Your task to perform on an android device: Search for top rated sushi restaurants on Maps Image 0: 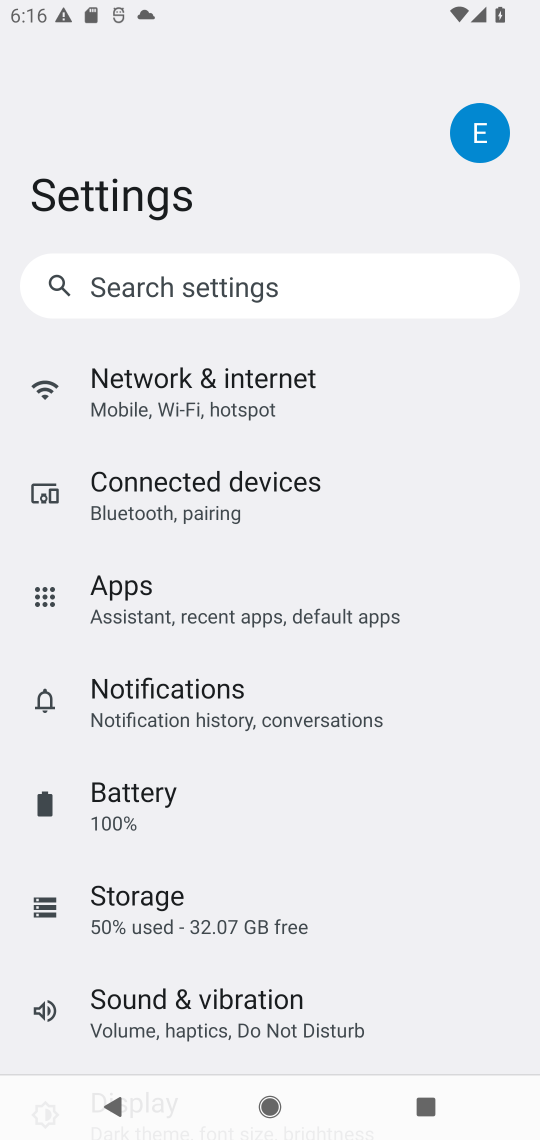
Step 0: press home button
Your task to perform on an android device: Search for top rated sushi restaurants on Maps Image 1: 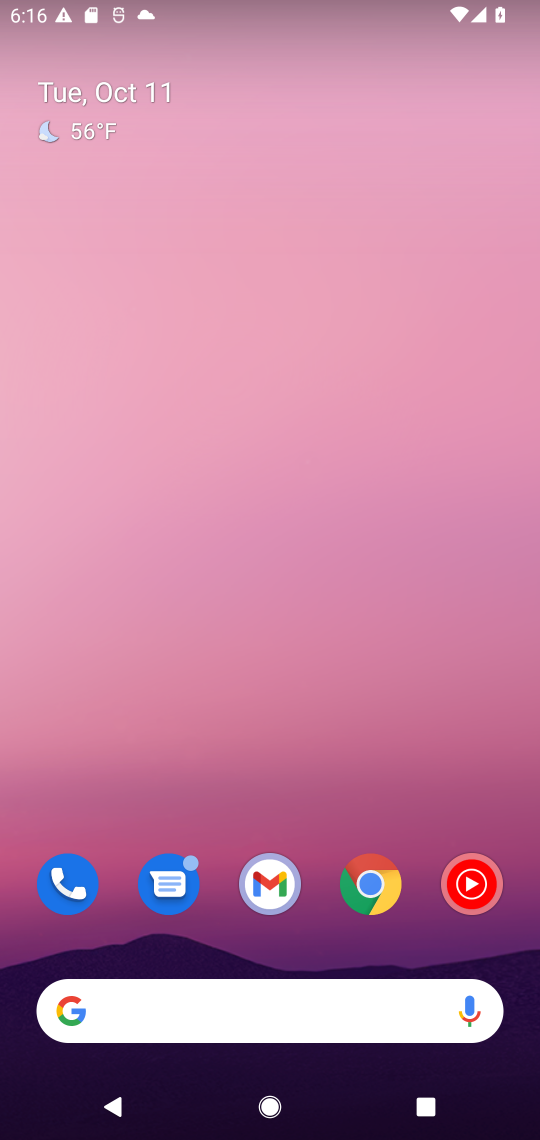
Step 1: drag from (320, 890) to (310, 92)
Your task to perform on an android device: Search for top rated sushi restaurants on Maps Image 2: 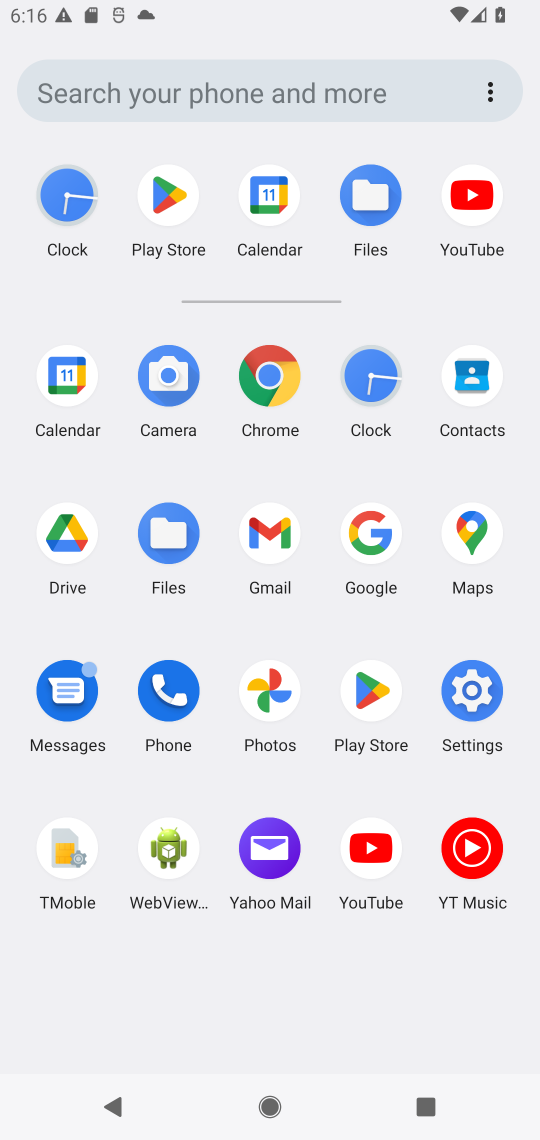
Step 2: click (463, 529)
Your task to perform on an android device: Search for top rated sushi restaurants on Maps Image 3: 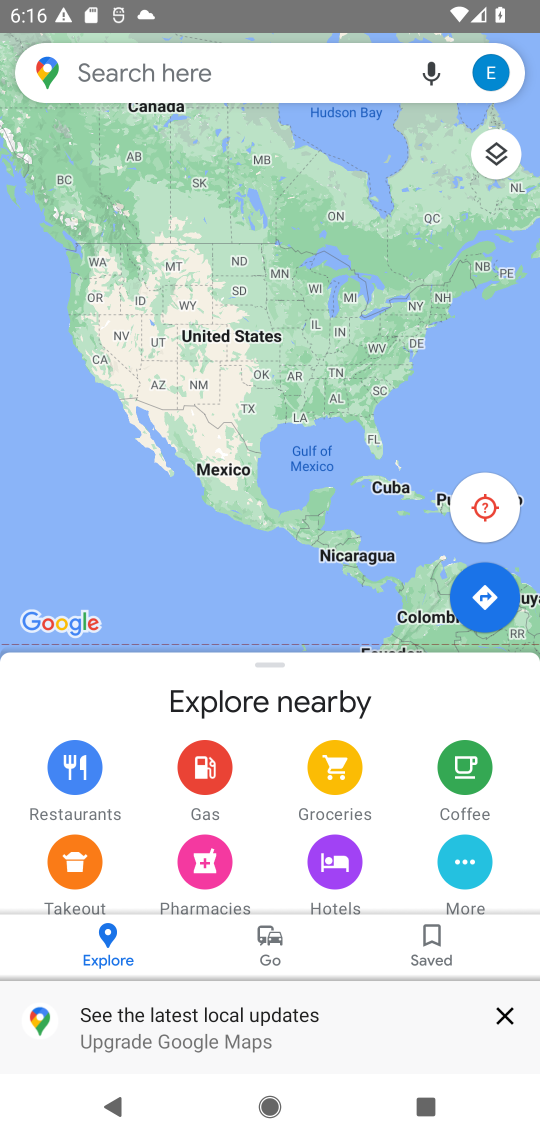
Step 3: click (248, 69)
Your task to perform on an android device: Search for top rated sushi restaurants on Maps Image 4: 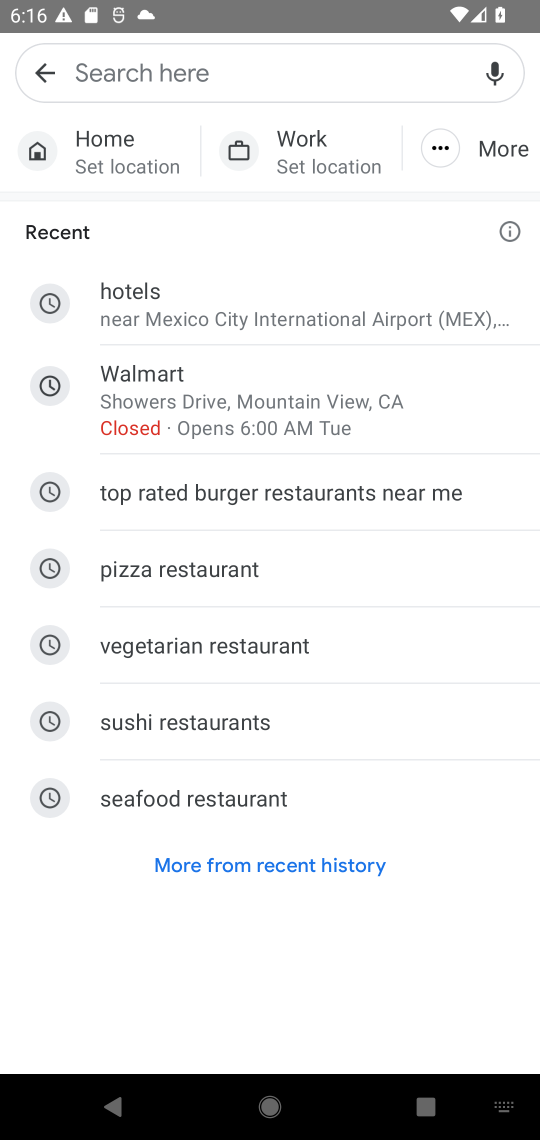
Step 4: type "top rated sushi restaurants"
Your task to perform on an android device: Search for top rated sushi restaurants on Maps Image 5: 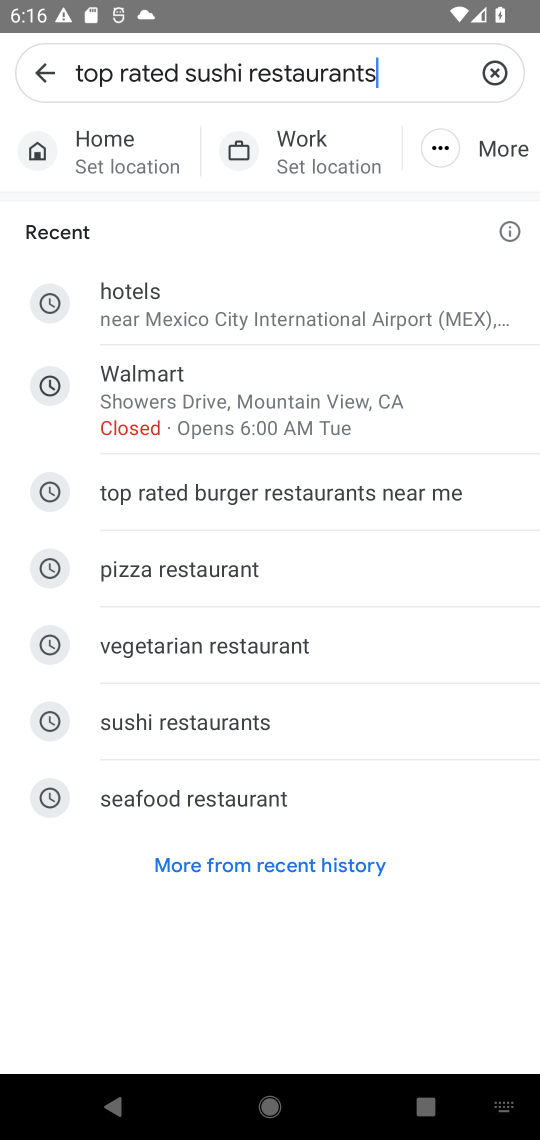
Step 5: type ""
Your task to perform on an android device: Search for top rated sushi restaurants on Maps Image 6: 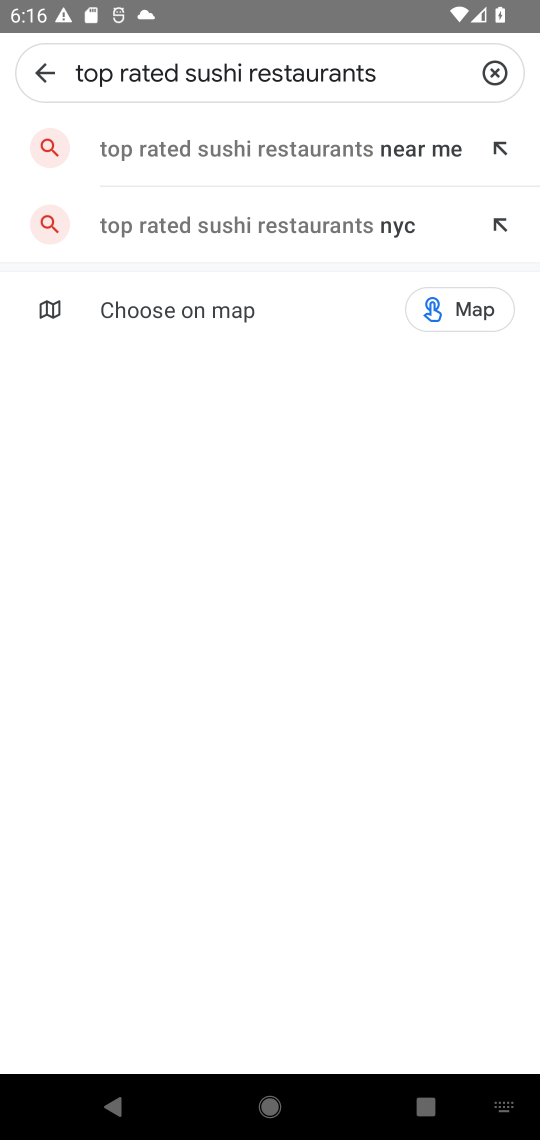
Step 6: click (334, 153)
Your task to perform on an android device: Search for top rated sushi restaurants on Maps Image 7: 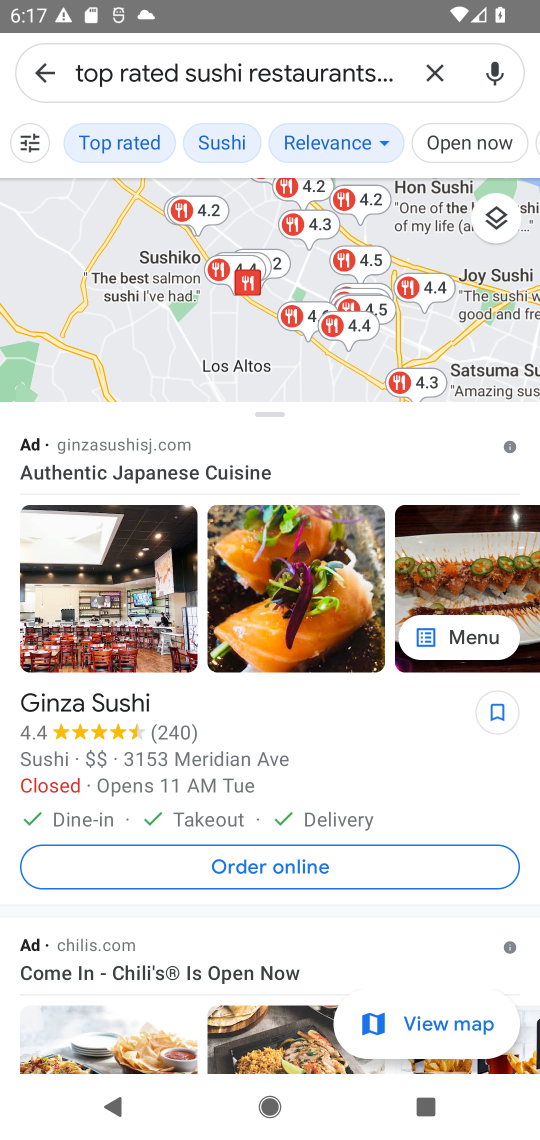
Step 7: task complete